Your task to perform on an android device: Go to Google maps Image 0: 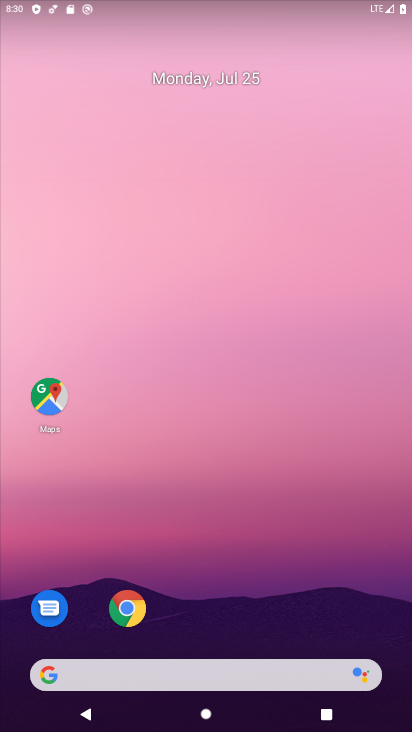
Step 0: drag from (230, 724) to (238, 196)
Your task to perform on an android device: Go to Google maps Image 1: 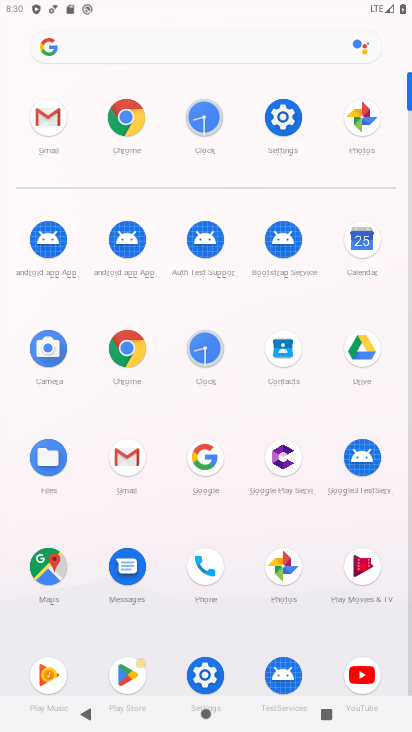
Step 1: click (45, 558)
Your task to perform on an android device: Go to Google maps Image 2: 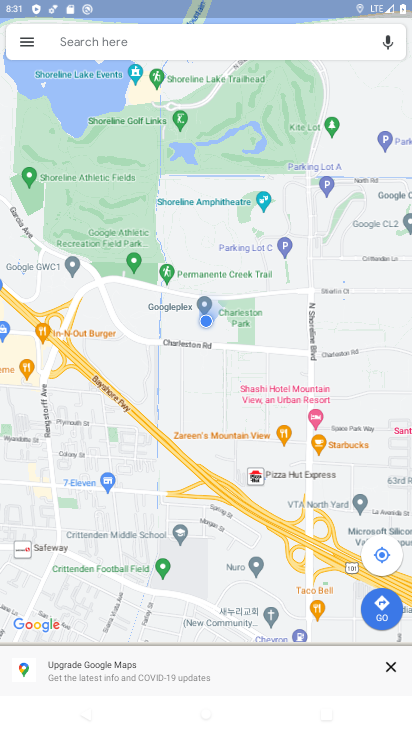
Step 2: task complete